Your task to perform on an android device: Empty the shopping cart on target.com. Add "logitech g pro" to the cart on target.com Image 0: 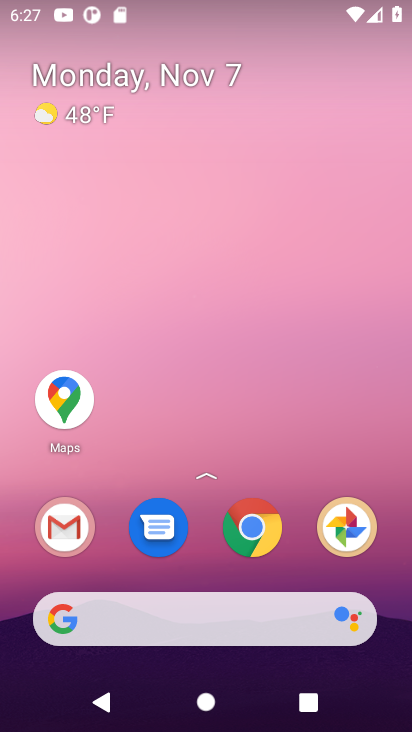
Step 0: click (263, 532)
Your task to perform on an android device: Empty the shopping cart on target.com. Add "logitech g pro" to the cart on target.com Image 1: 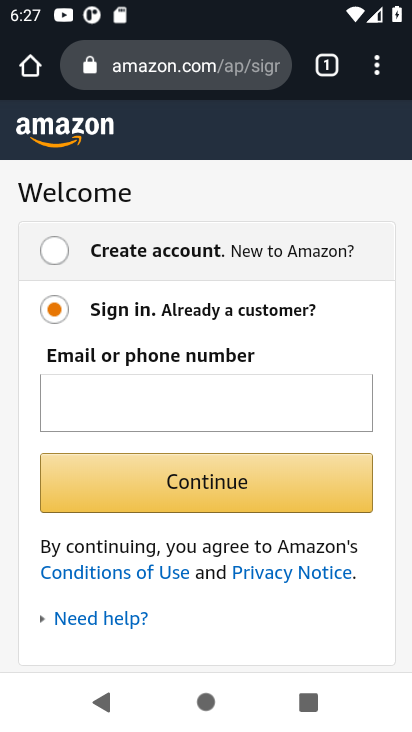
Step 1: click (214, 62)
Your task to perform on an android device: Empty the shopping cart on target.com. Add "logitech g pro" to the cart on target.com Image 2: 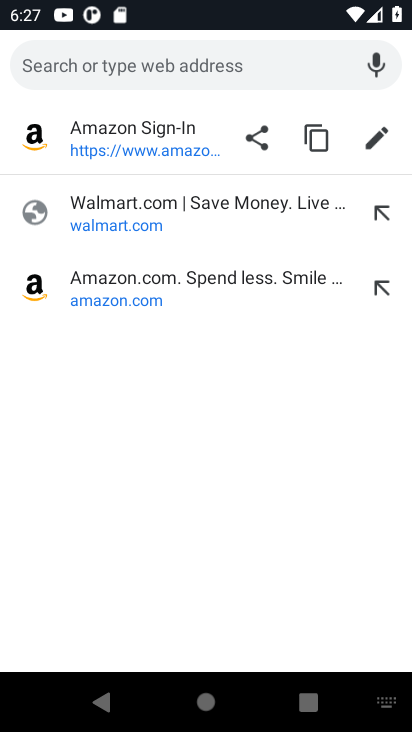
Step 2: type "target.com"
Your task to perform on an android device: Empty the shopping cart on target.com. Add "logitech g pro" to the cart on target.com Image 3: 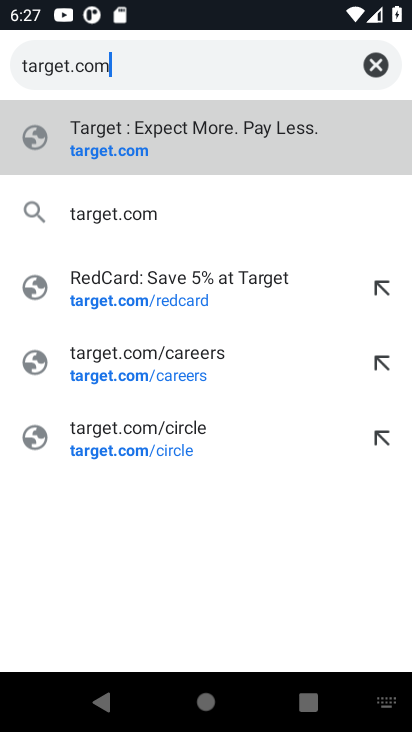
Step 3: click (179, 136)
Your task to perform on an android device: Empty the shopping cart on target.com. Add "logitech g pro" to the cart on target.com Image 4: 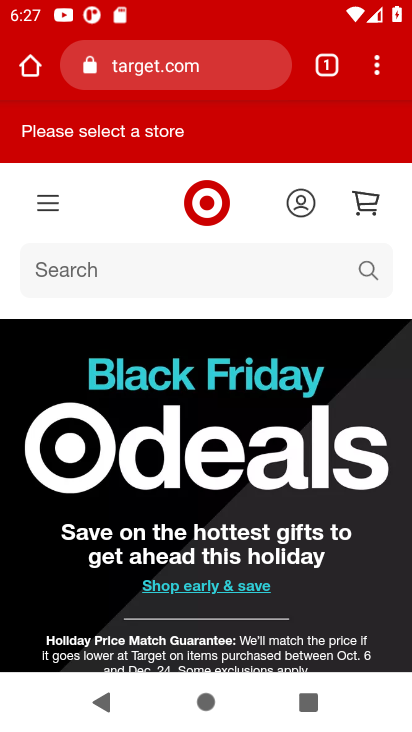
Step 4: click (167, 274)
Your task to perform on an android device: Empty the shopping cart on target.com. Add "logitech g pro" to the cart on target.com Image 5: 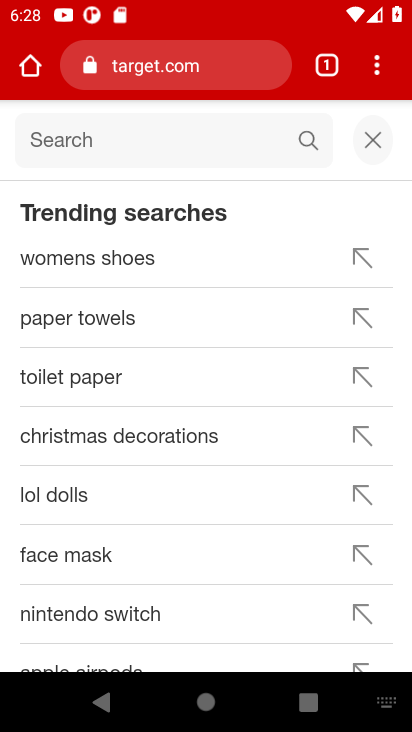
Step 5: type "logitech g pro"
Your task to perform on an android device: Empty the shopping cart on target.com. Add "logitech g pro" to the cart on target.com Image 6: 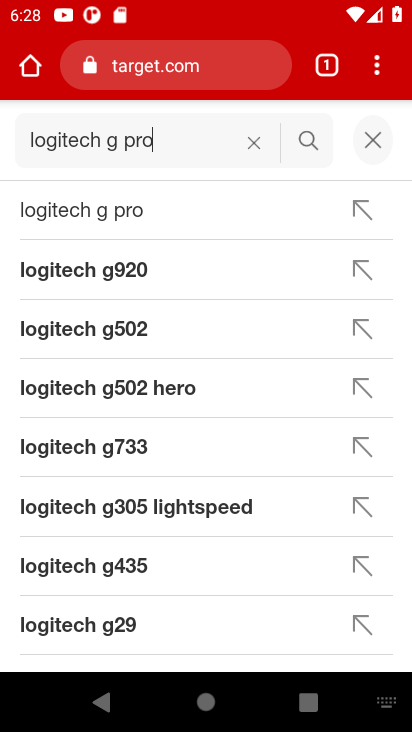
Step 6: click (135, 207)
Your task to perform on an android device: Empty the shopping cart on target.com. Add "logitech g pro" to the cart on target.com Image 7: 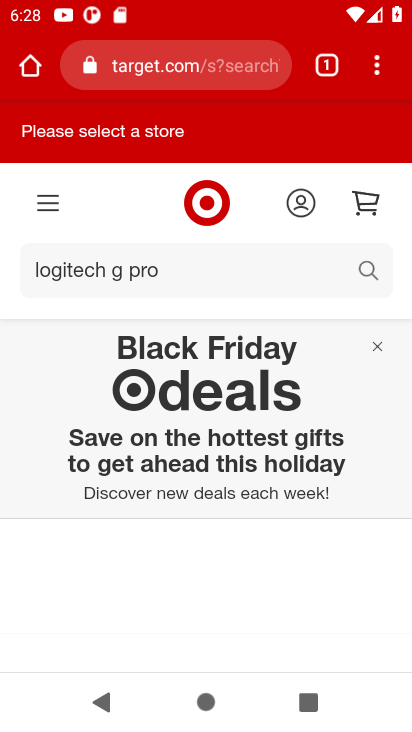
Step 7: drag from (257, 613) to (228, 152)
Your task to perform on an android device: Empty the shopping cart on target.com. Add "logitech g pro" to the cart on target.com Image 8: 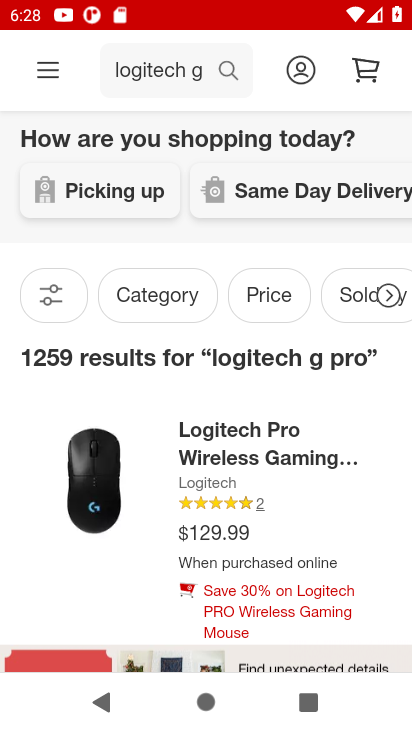
Step 8: click (112, 469)
Your task to perform on an android device: Empty the shopping cart on target.com. Add "logitech g pro" to the cart on target.com Image 9: 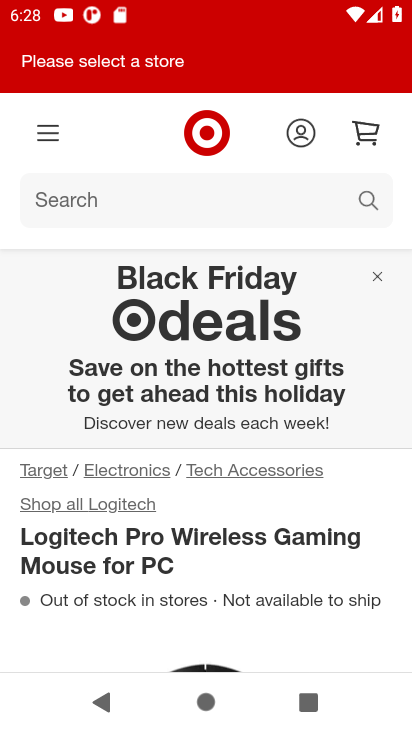
Step 9: drag from (275, 598) to (225, 288)
Your task to perform on an android device: Empty the shopping cart on target.com. Add "logitech g pro" to the cart on target.com Image 10: 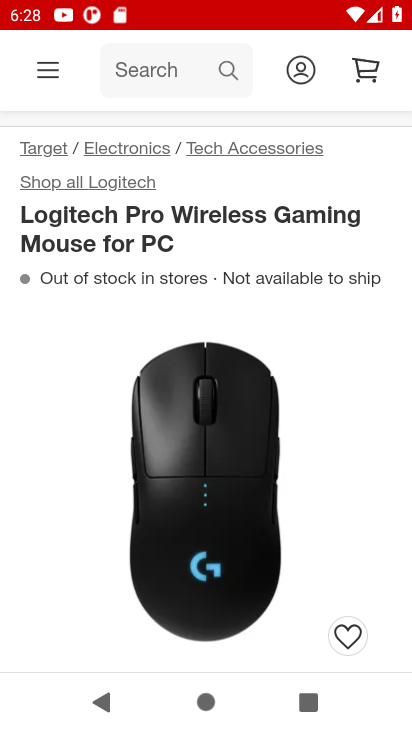
Step 10: drag from (237, 601) to (177, 201)
Your task to perform on an android device: Empty the shopping cart on target.com. Add "logitech g pro" to the cart on target.com Image 11: 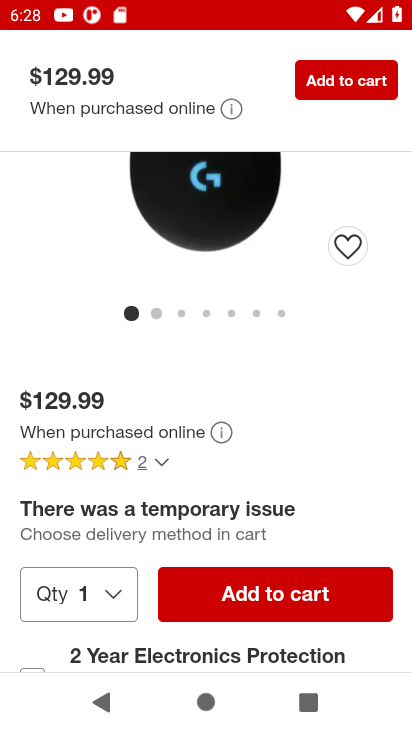
Step 11: click (288, 604)
Your task to perform on an android device: Empty the shopping cart on target.com. Add "logitech g pro" to the cart on target.com Image 12: 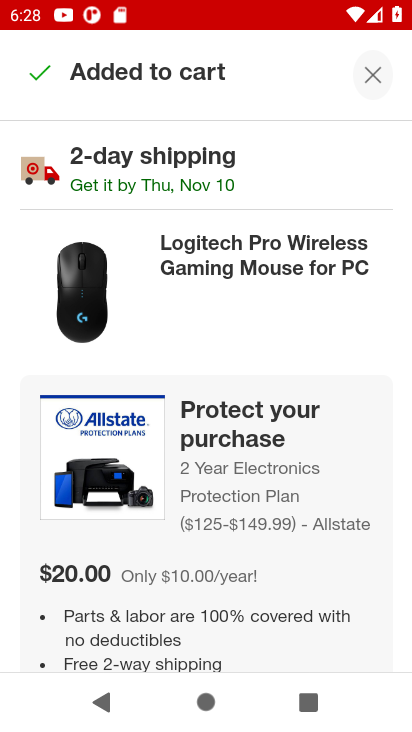
Step 12: click (371, 72)
Your task to perform on an android device: Empty the shopping cart on target.com. Add "logitech g pro" to the cart on target.com Image 13: 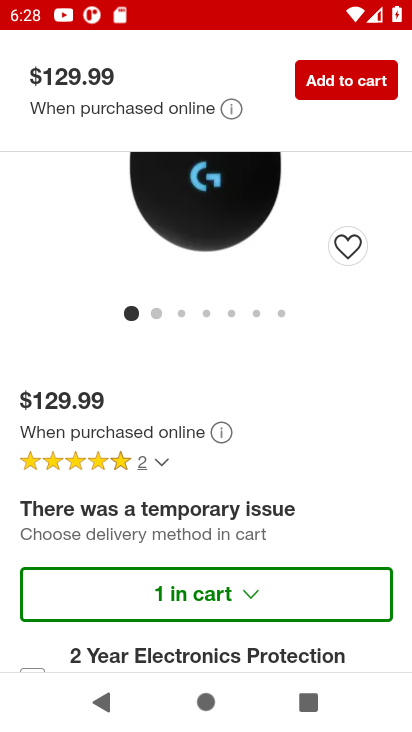
Step 13: task complete